Your task to perform on an android device: Do I have any events this weekend? Image 0: 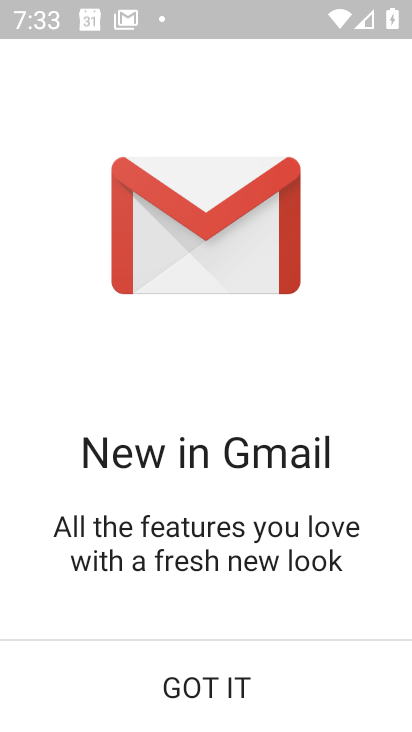
Step 0: click (214, 681)
Your task to perform on an android device: Do I have any events this weekend? Image 1: 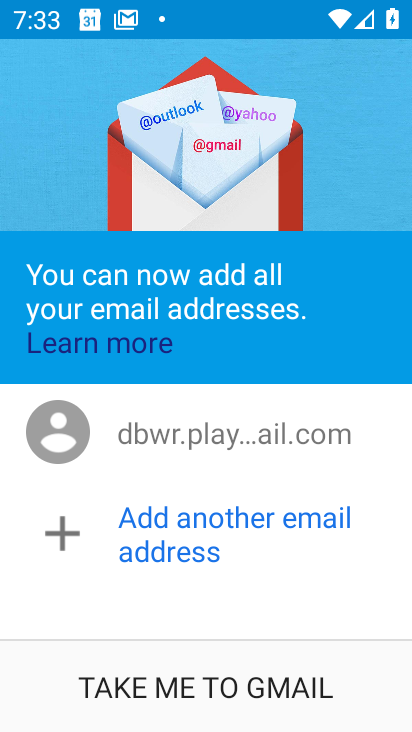
Step 1: click (214, 682)
Your task to perform on an android device: Do I have any events this weekend? Image 2: 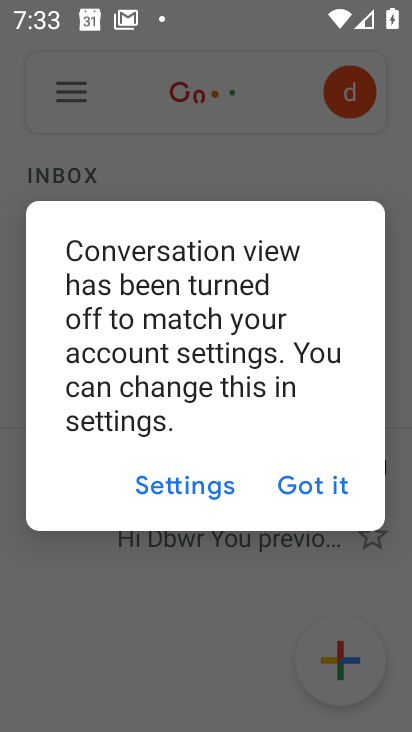
Step 2: click (311, 479)
Your task to perform on an android device: Do I have any events this weekend? Image 3: 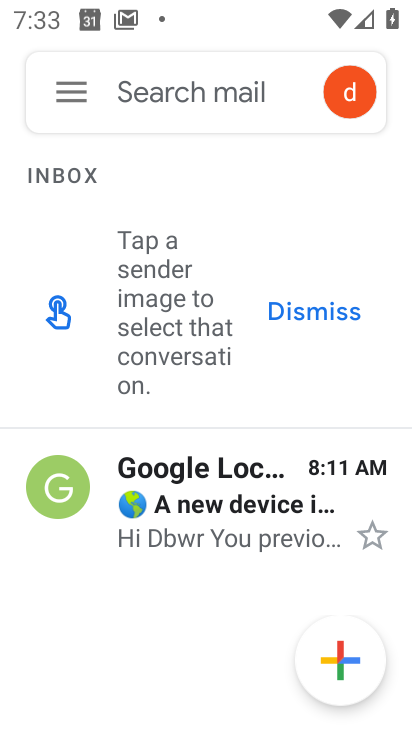
Step 3: press back button
Your task to perform on an android device: Do I have any events this weekend? Image 4: 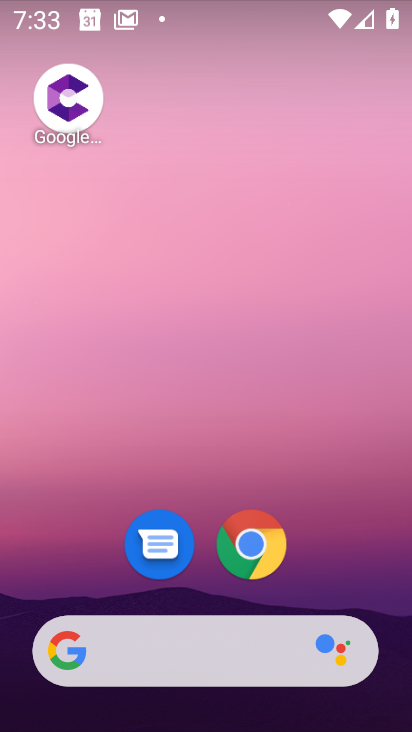
Step 4: drag from (349, 549) to (236, 50)
Your task to perform on an android device: Do I have any events this weekend? Image 5: 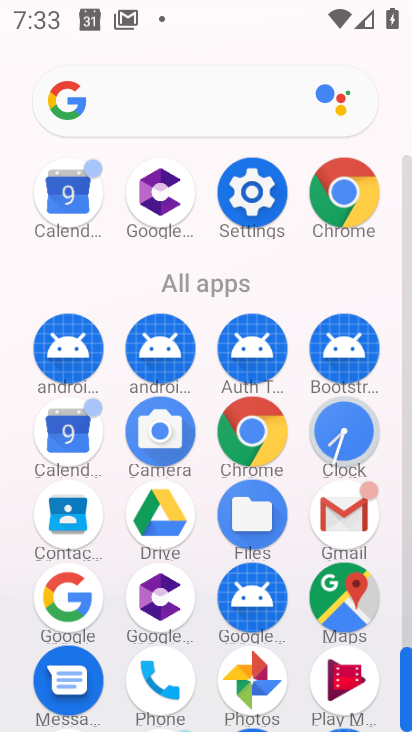
Step 5: click (66, 201)
Your task to perform on an android device: Do I have any events this weekend? Image 6: 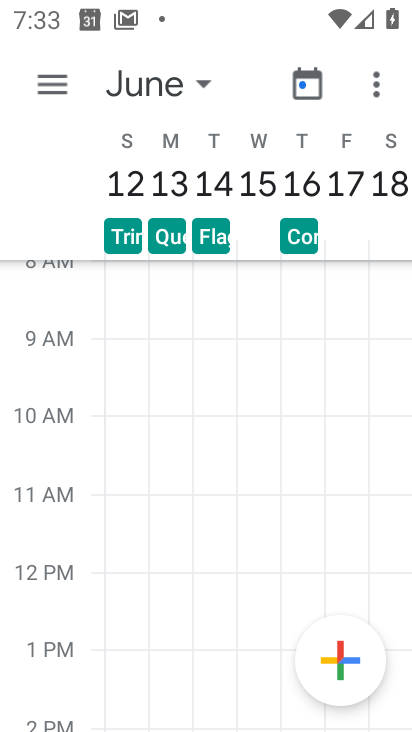
Step 6: click (308, 83)
Your task to perform on an android device: Do I have any events this weekend? Image 7: 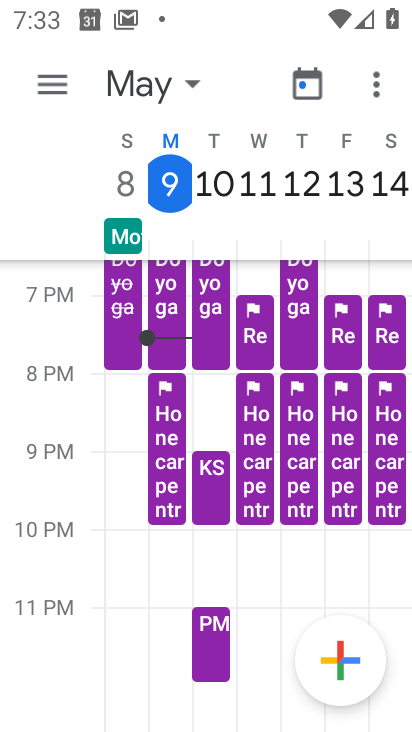
Step 7: click (192, 78)
Your task to perform on an android device: Do I have any events this weekend? Image 8: 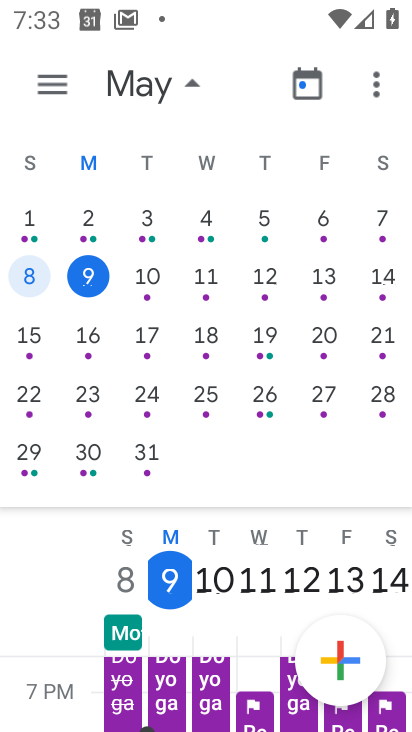
Step 8: click (375, 277)
Your task to perform on an android device: Do I have any events this weekend? Image 9: 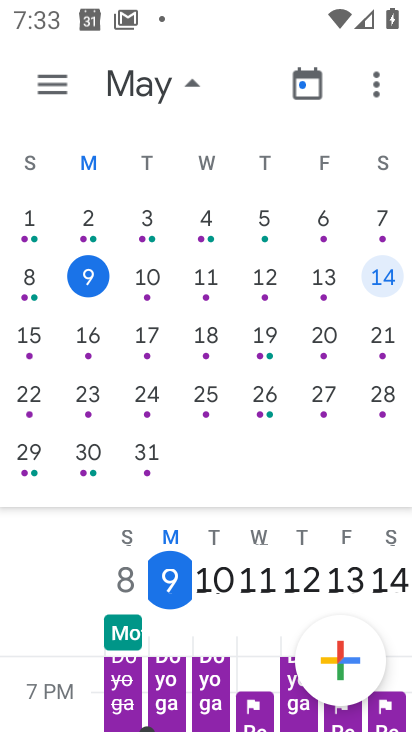
Step 9: click (61, 92)
Your task to perform on an android device: Do I have any events this weekend? Image 10: 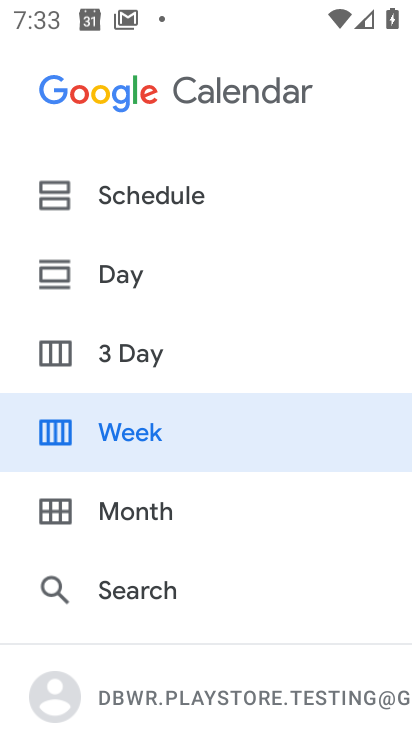
Step 10: click (138, 192)
Your task to perform on an android device: Do I have any events this weekend? Image 11: 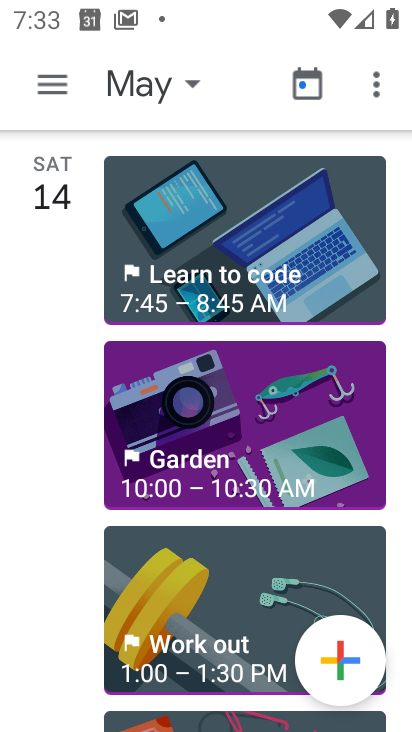
Step 11: drag from (222, 524) to (232, 445)
Your task to perform on an android device: Do I have any events this weekend? Image 12: 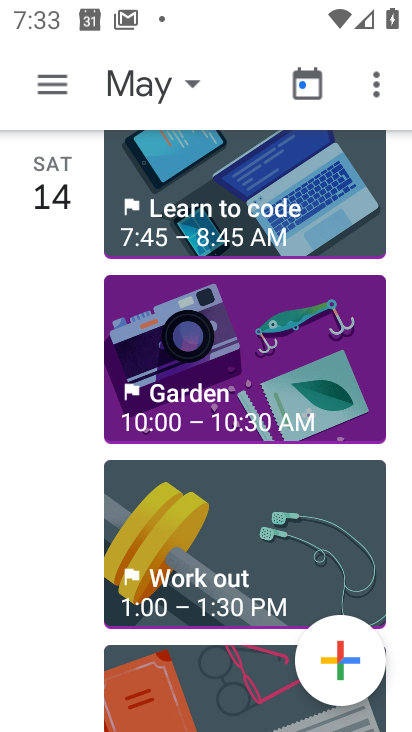
Step 12: click (254, 371)
Your task to perform on an android device: Do I have any events this weekend? Image 13: 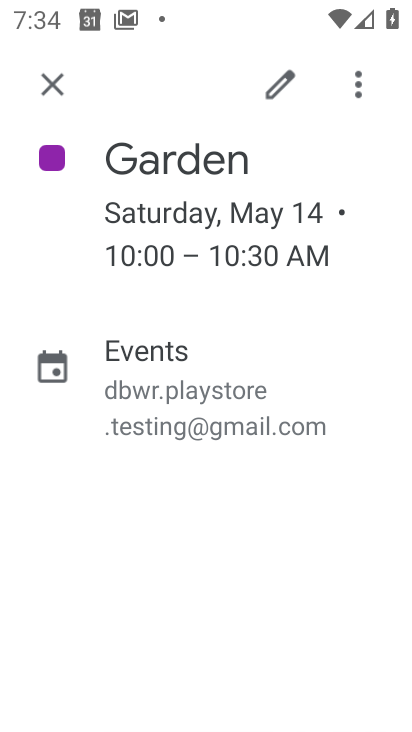
Step 13: task complete